Your task to perform on an android device: open app "File Manager" (install if not already installed) Image 0: 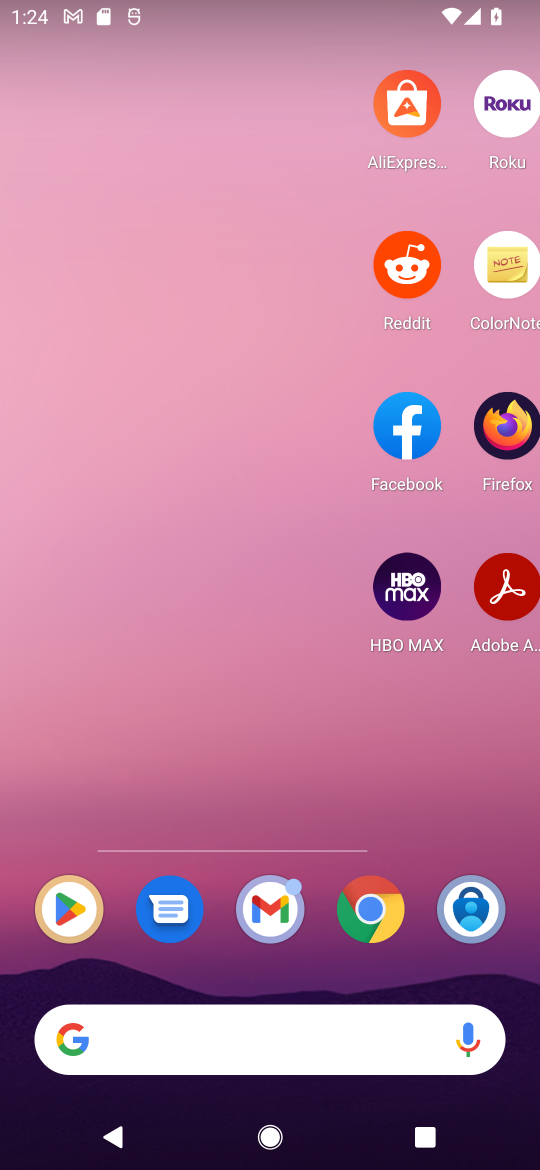
Step 0: press home button
Your task to perform on an android device: open app "File Manager" (install if not already installed) Image 1: 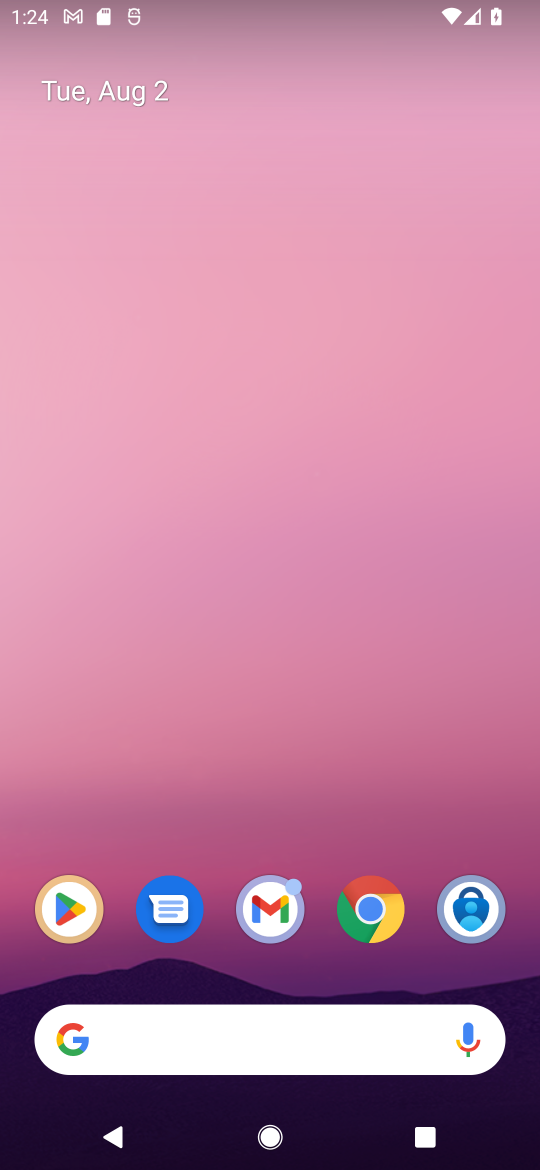
Step 1: click (67, 904)
Your task to perform on an android device: open app "File Manager" (install if not already installed) Image 2: 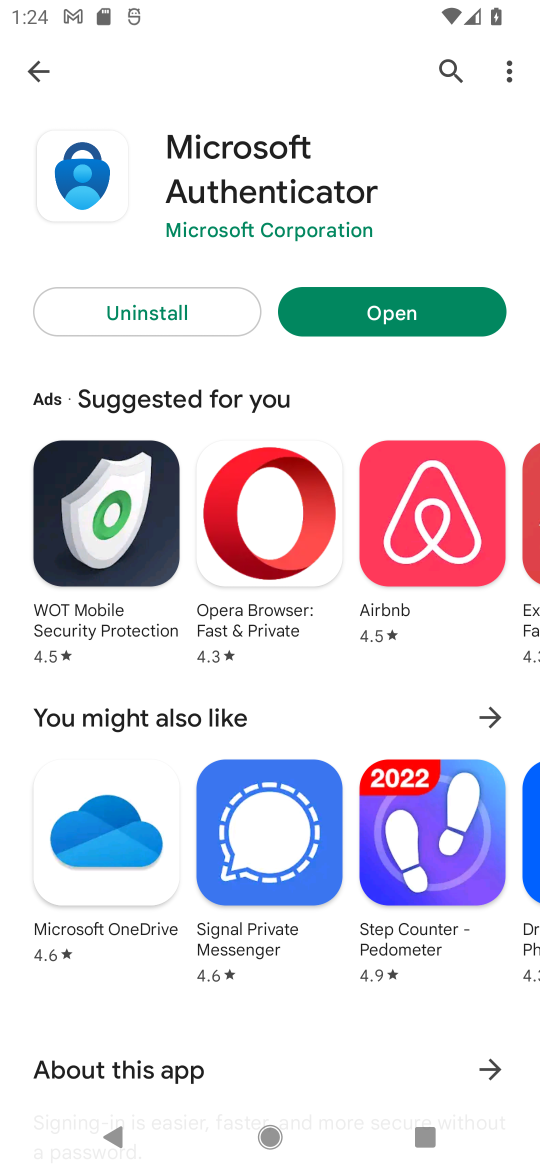
Step 2: click (428, 72)
Your task to perform on an android device: open app "File Manager" (install if not already installed) Image 3: 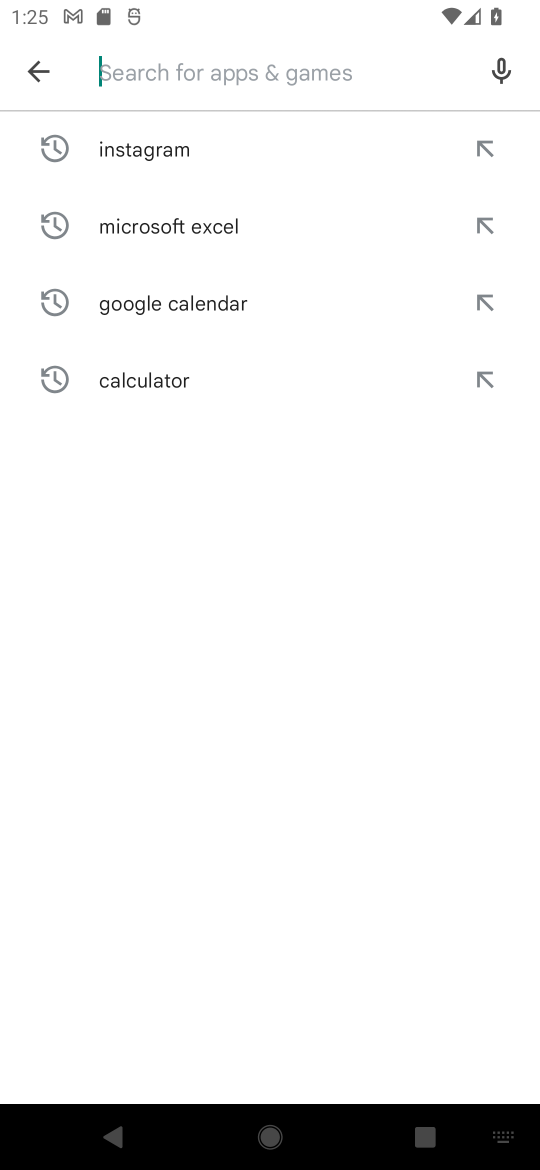
Step 3: type "File Manager"
Your task to perform on an android device: open app "File Manager" (install if not already installed) Image 4: 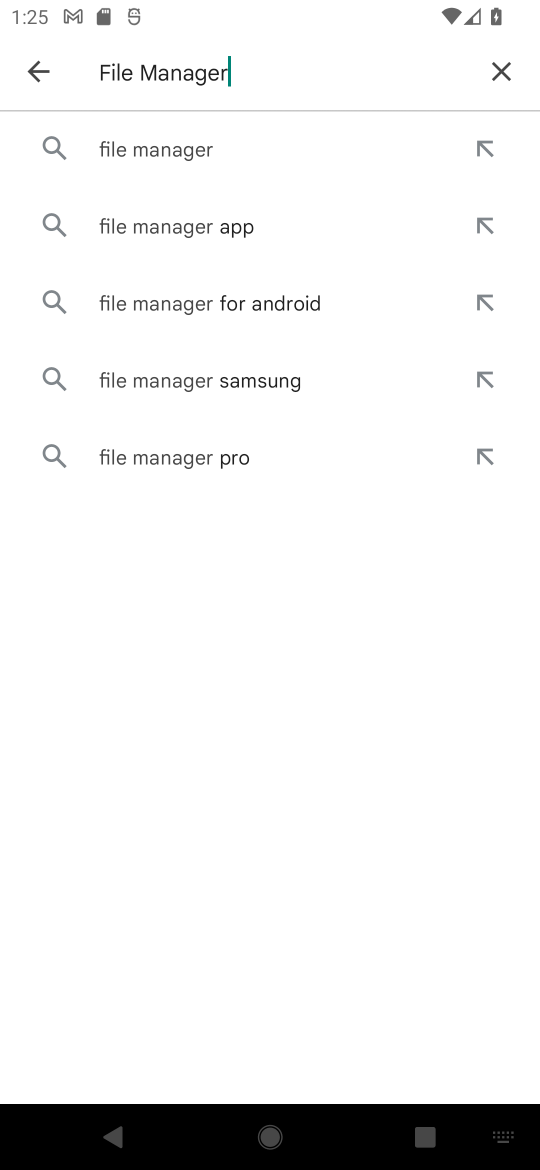
Step 4: click (132, 139)
Your task to perform on an android device: open app "File Manager" (install if not already installed) Image 5: 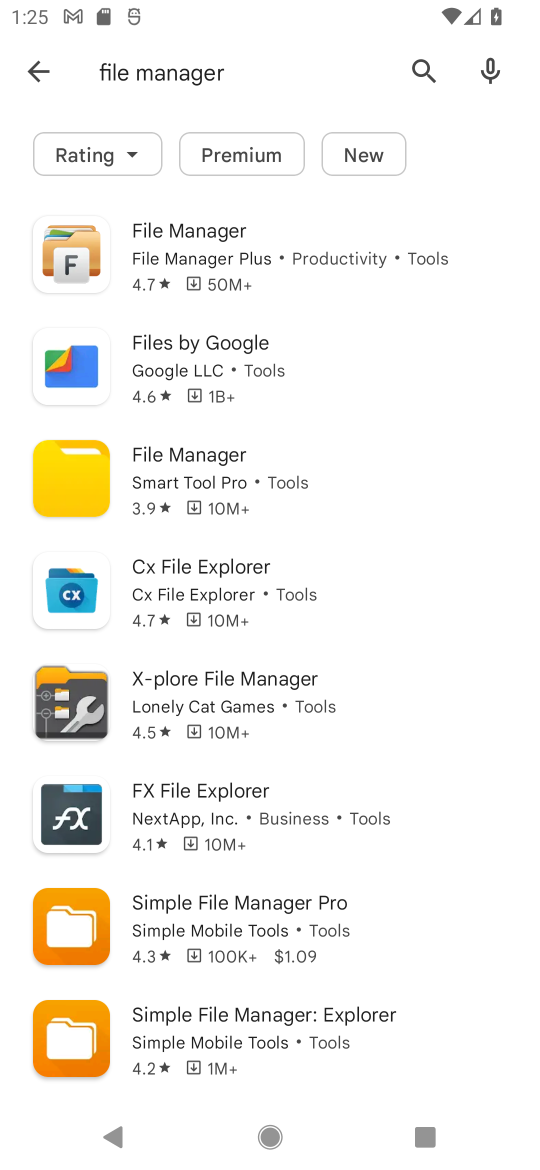
Step 5: click (226, 252)
Your task to perform on an android device: open app "File Manager" (install if not already installed) Image 6: 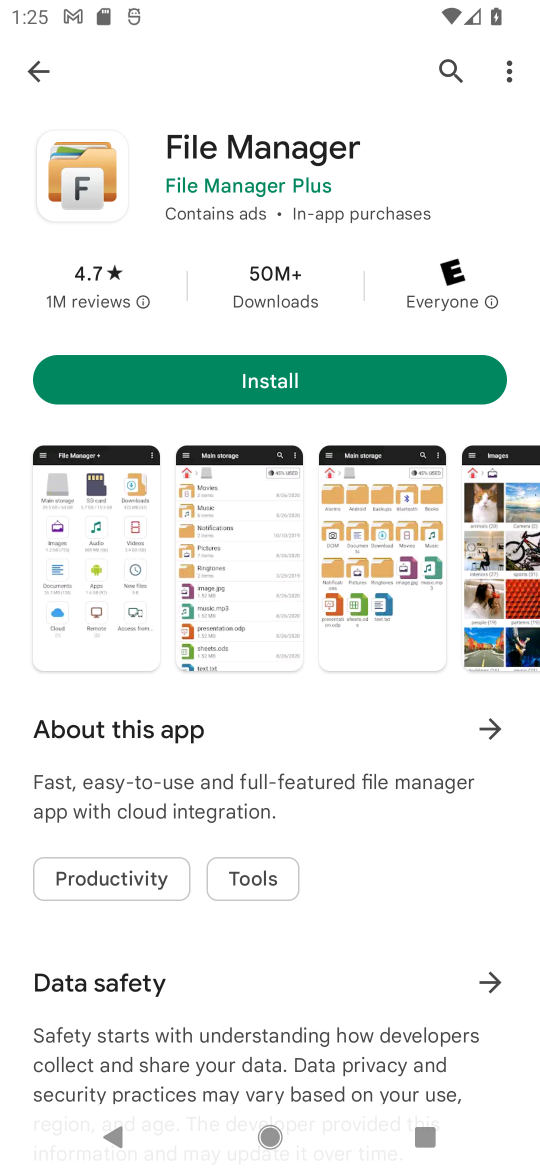
Step 6: click (288, 379)
Your task to perform on an android device: open app "File Manager" (install if not already installed) Image 7: 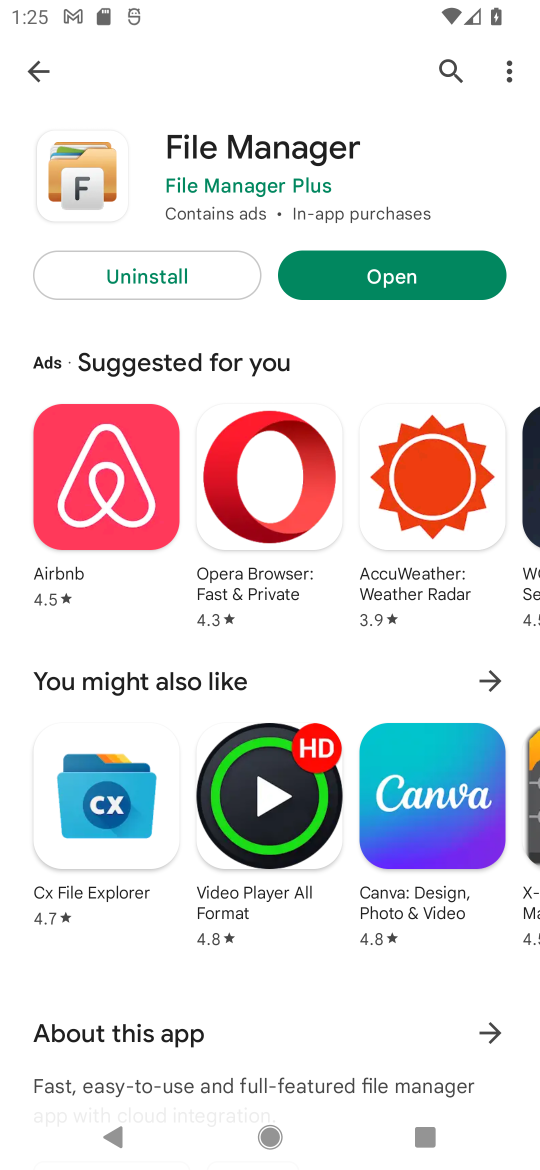
Step 7: click (385, 267)
Your task to perform on an android device: open app "File Manager" (install if not already installed) Image 8: 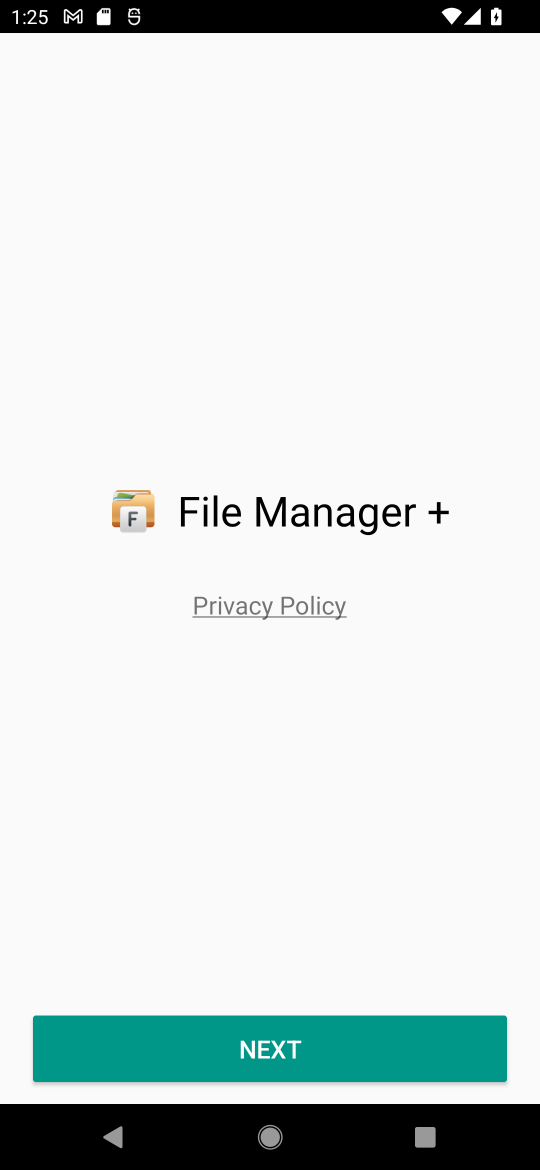
Step 8: click (387, 1061)
Your task to perform on an android device: open app "File Manager" (install if not already installed) Image 9: 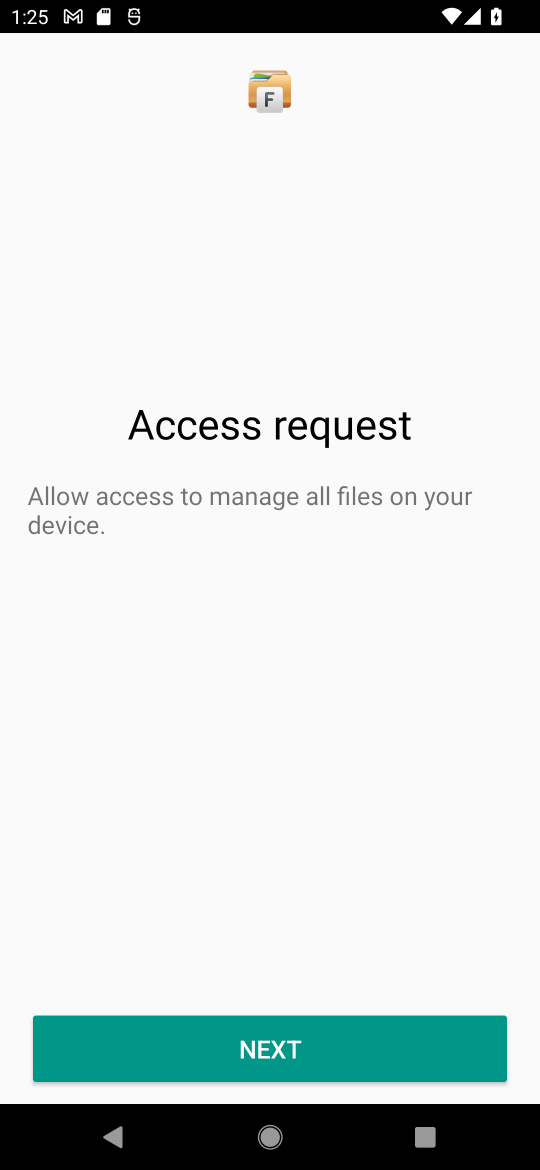
Step 9: task complete